Your task to perform on an android device: turn on translation in the chrome app Image 0: 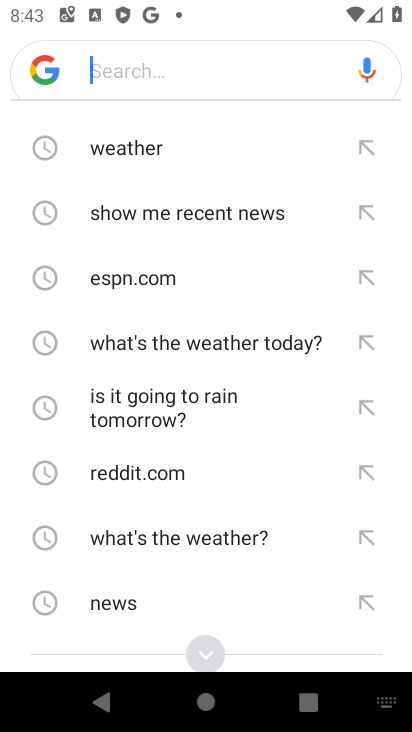
Step 0: press home button
Your task to perform on an android device: turn on translation in the chrome app Image 1: 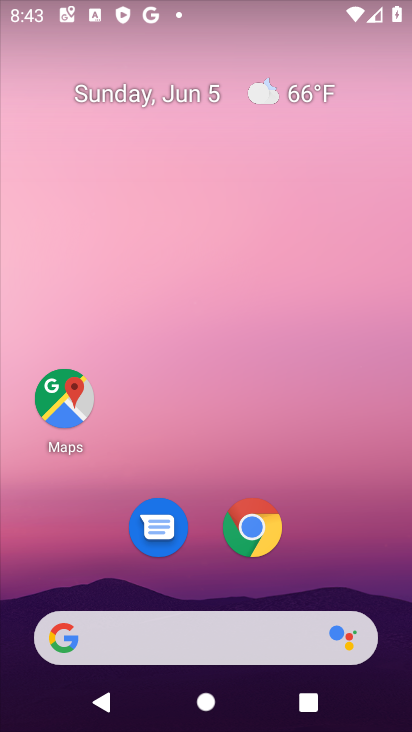
Step 1: click (247, 524)
Your task to perform on an android device: turn on translation in the chrome app Image 2: 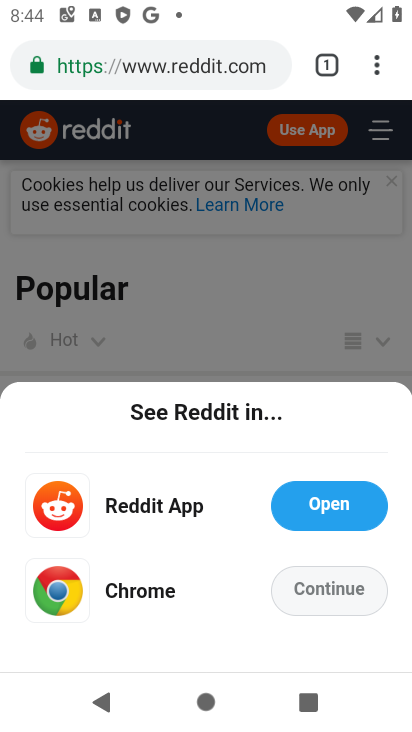
Step 2: click (394, 55)
Your task to perform on an android device: turn on translation in the chrome app Image 3: 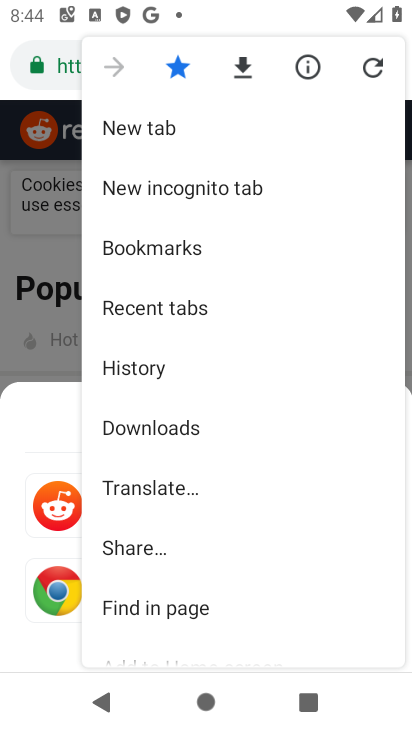
Step 3: drag from (133, 635) to (171, 164)
Your task to perform on an android device: turn on translation in the chrome app Image 4: 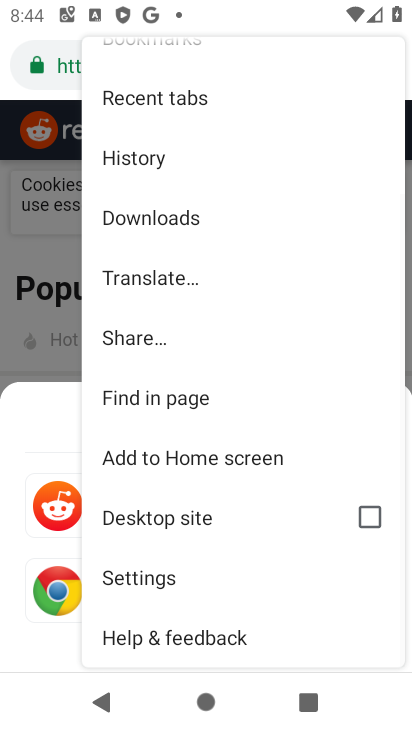
Step 4: click (125, 598)
Your task to perform on an android device: turn on translation in the chrome app Image 5: 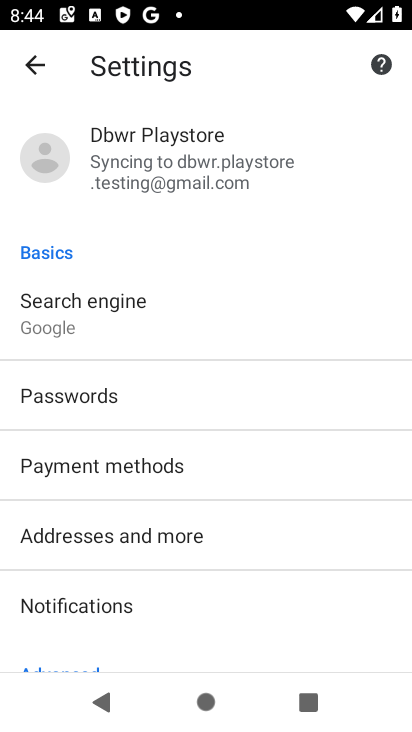
Step 5: drag from (121, 586) to (202, 208)
Your task to perform on an android device: turn on translation in the chrome app Image 6: 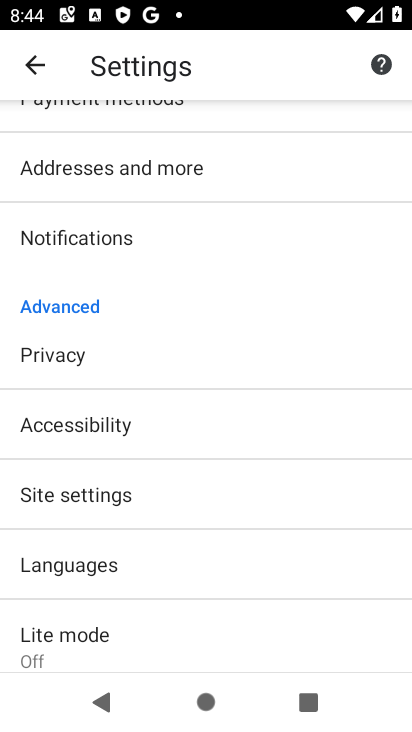
Step 6: click (106, 557)
Your task to perform on an android device: turn on translation in the chrome app Image 7: 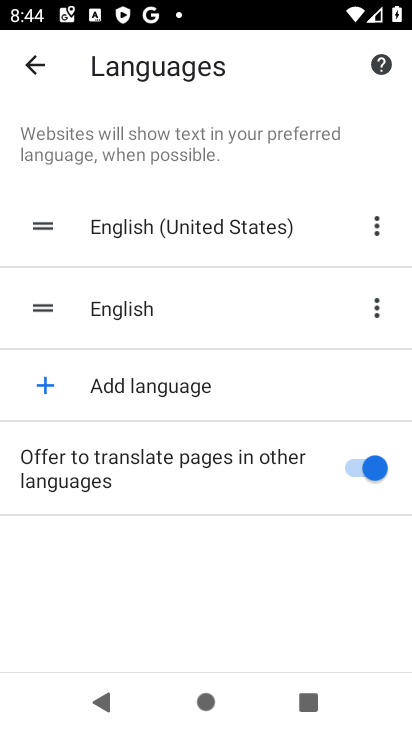
Step 7: task complete